Your task to perform on an android device: find photos in the google photos app Image 0: 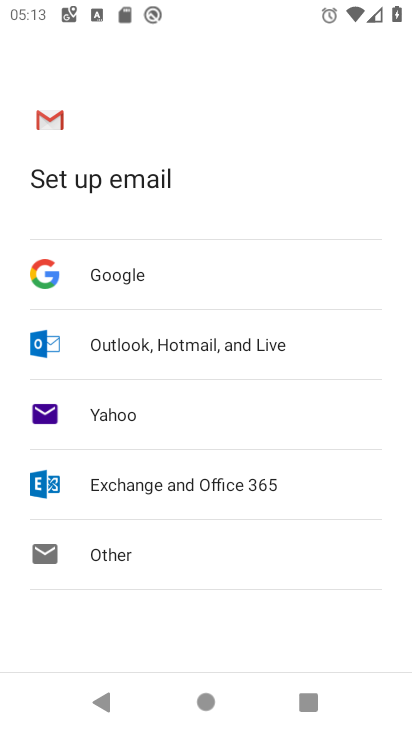
Step 0: press home button
Your task to perform on an android device: find photos in the google photos app Image 1: 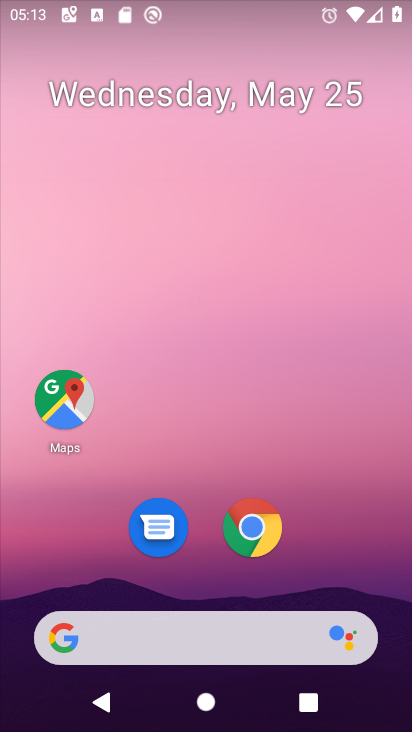
Step 1: drag from (319, 515) to (344, 221)
Your task to perform on an android device: find photos in the google photos app Image 2: 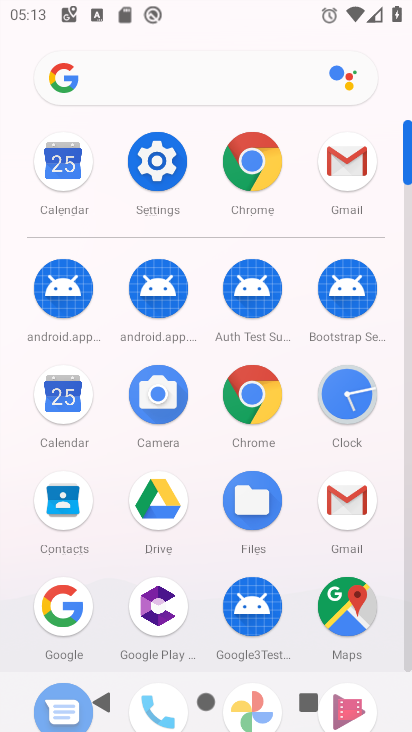
Step 2: click (258, 700)
Your task to perform on an android device: find photos in the google photos app Image 3: 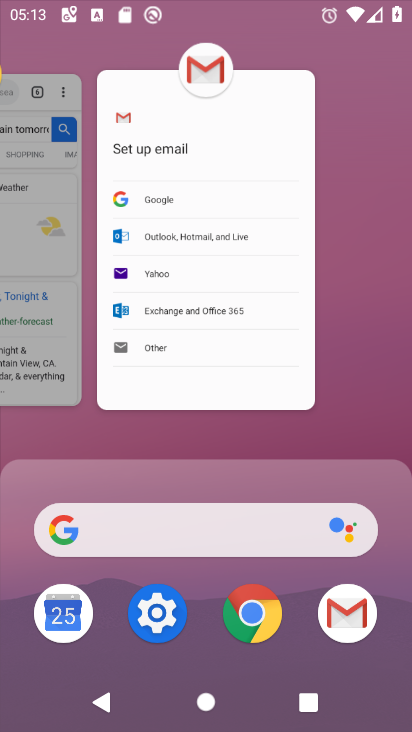
Step 3: press home button
Your task to perform on an android device: find photos in the google photos app Image 4: 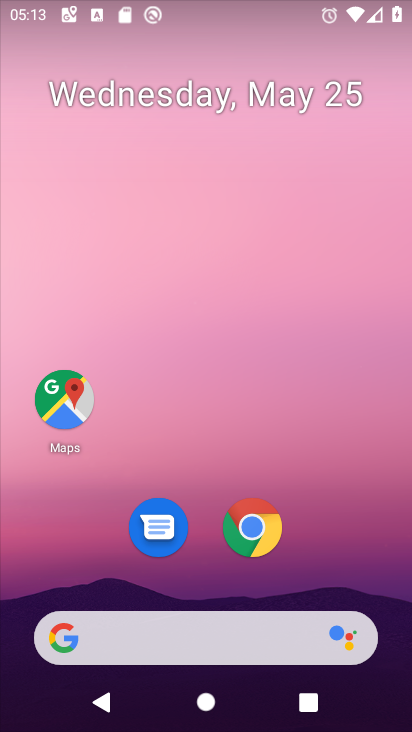
Step 4: drag from (306, 570) to (263, 95)
Your task to perform on an android device: find photos in the google photos app Image 5: 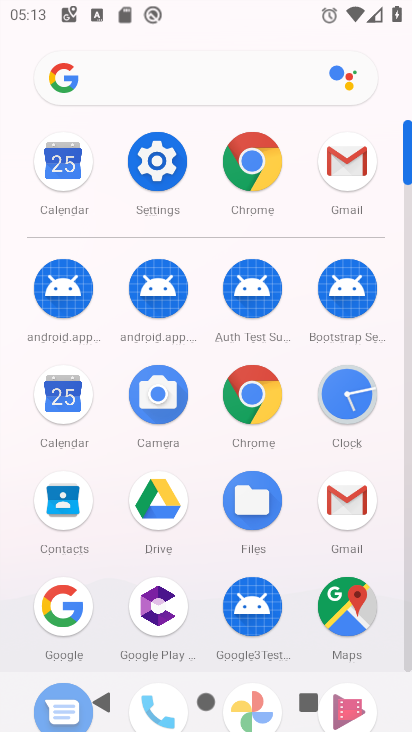
Step 5: drag from (248, 551) to (271, 152)
Your task to perform on an android device: find photos in the google photos app Image 6: 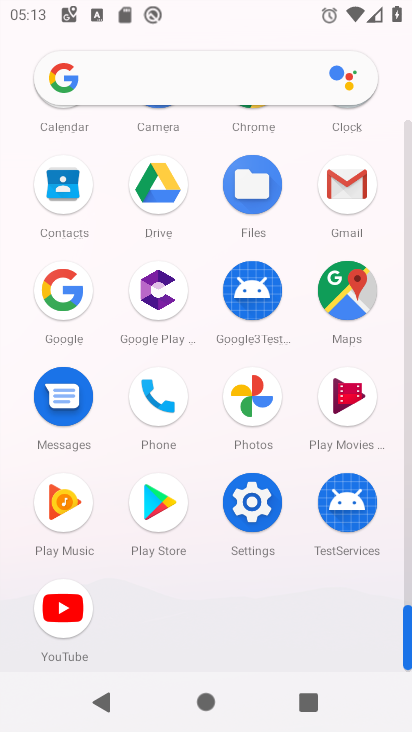
Step 6: click (251, 389)
Your task to perform on an android device: find photos in the google photos app Image 7: 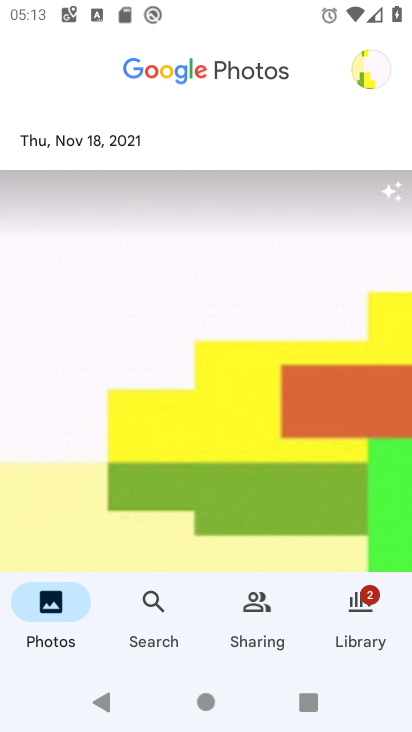
Step 7: task complete